Your task to perform on an android device: Search for vegetarian restaurants on Maps Image 0: 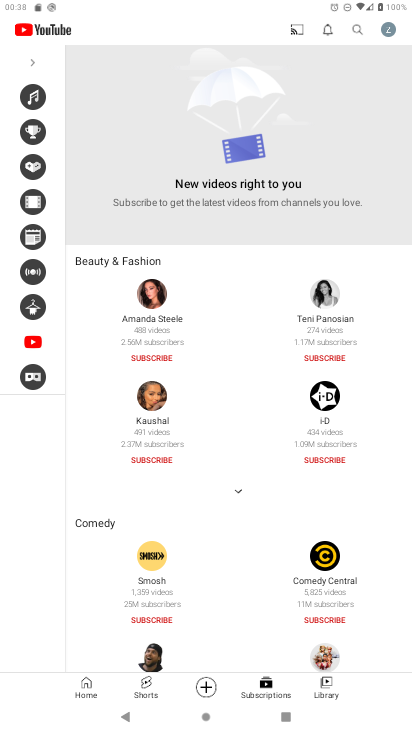
Step 0: drag from (234, 605) to (278, 220)
Your task to perform on an android device: Search for vegetarian restaurants on Maps Image 1: 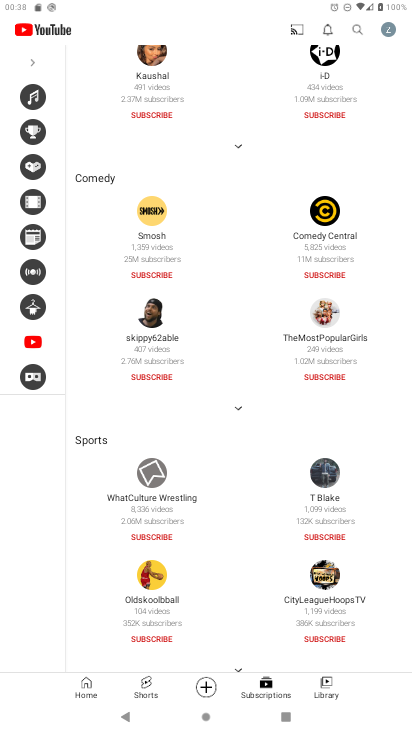
Step 1: drag from (285, 161) to (394, 295)
Your task to perform on an android device: Search for vegetarian restaurants on Maps Image 2: 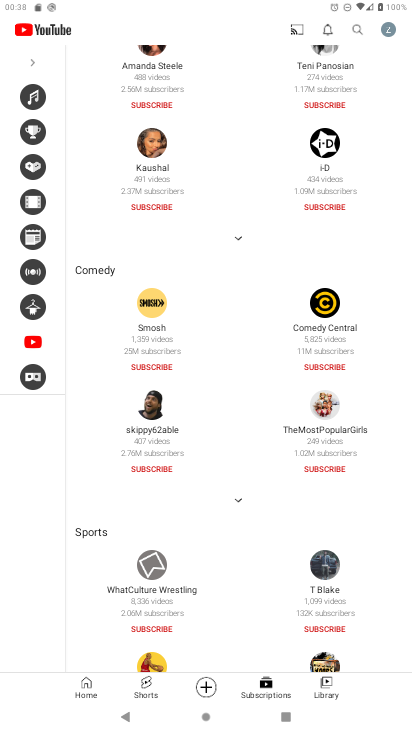
Step 2: drag from (188, 109) to (266, 613)
Your task to perform on an android device: Search for vegetarian restaurants on Maps Image 3: 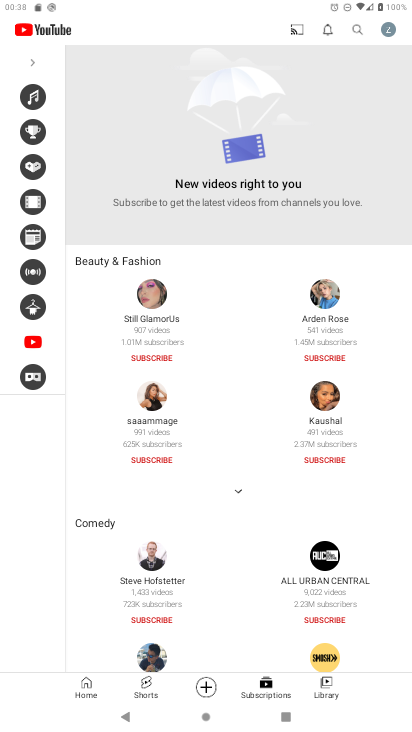
Step 3: press home button
Your task to perform on an android device: Search for vegetarian restaurants on Maps Image 4: 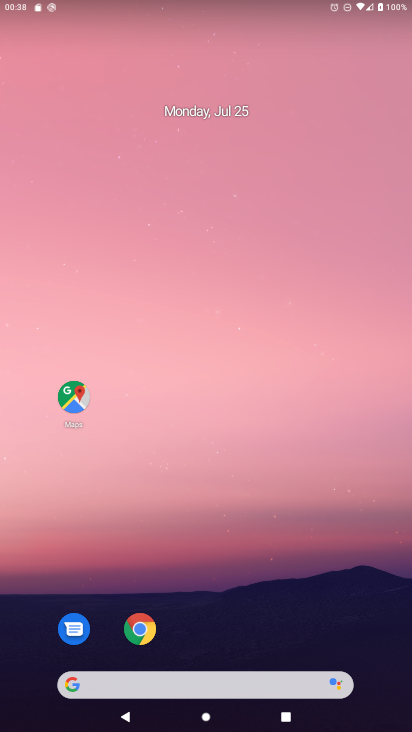
Step 4: drag from (213, 646) to (282, 2)
Your task to perform on an android device: Search for vegetarian restaurants on Maps Image 5: 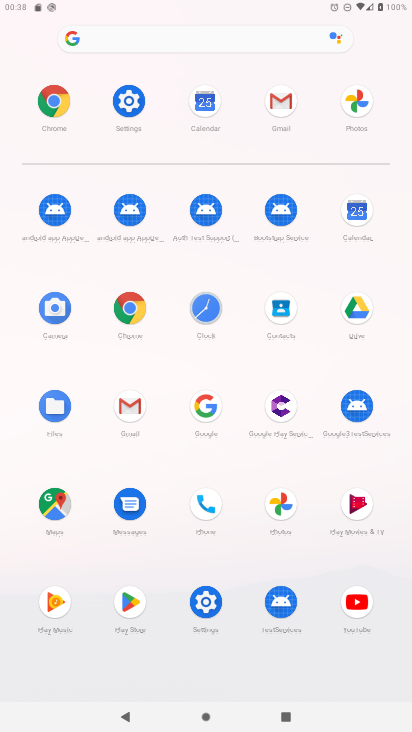
Step 5: click (53, 492)
Your task to perform on an android device: Search for vegetarian restaurants on Maps Image 6: 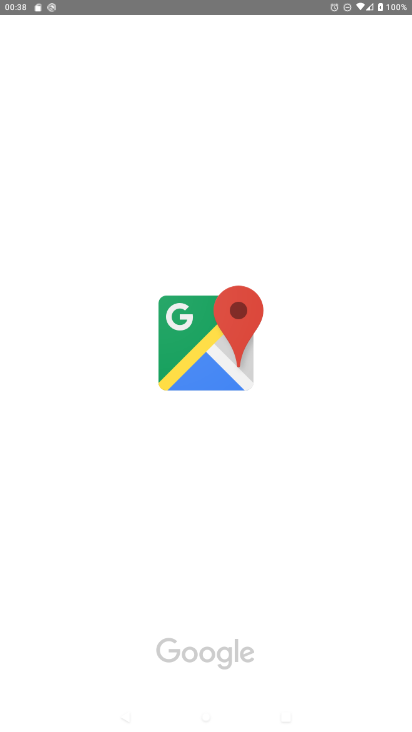
Step 6: drag from (229, 534) to (268, 300)
Your task to perform on an android device: Search for vegetarian restaurants on Maps Image 7: 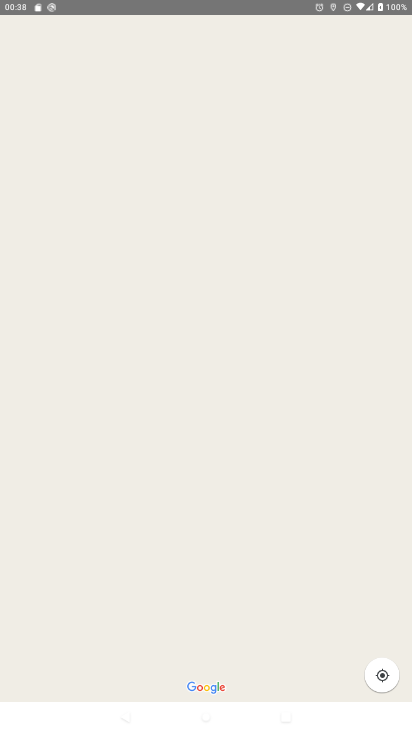
Step 7: drag from (339, 515) to (353, 287)
Your task to perform on an android device: Search for vegetarian restaurants on Maps Image 8: 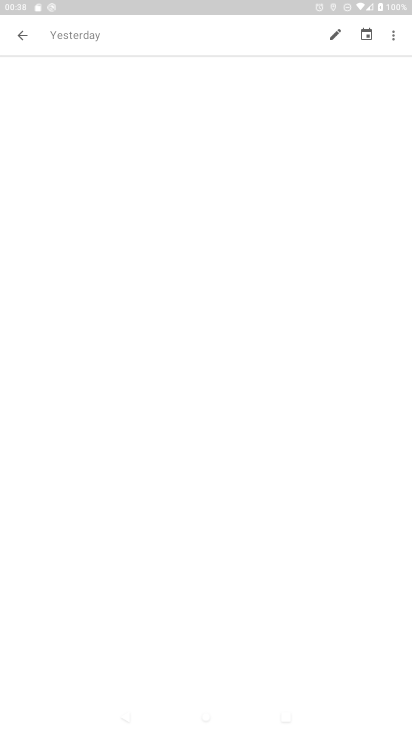
Step 8: click (10, 37)
Your task to perform on an android device: Search for vegetarian restaurants on Maps Image 9: 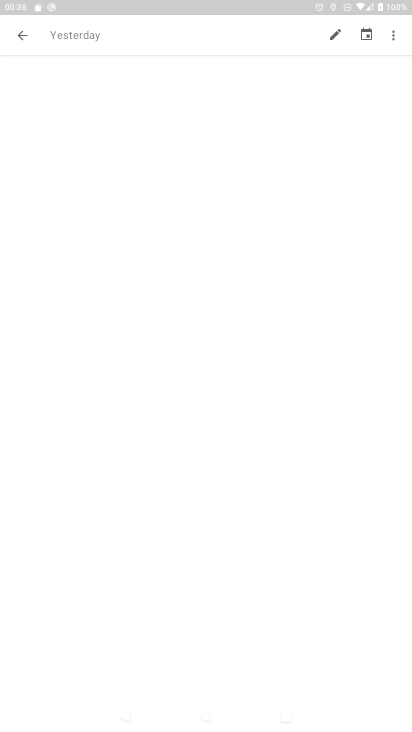
Step 9: click (22, 44)
Your task to perform on an android device: Search for vegetarian restaurants on Maps Image 10: 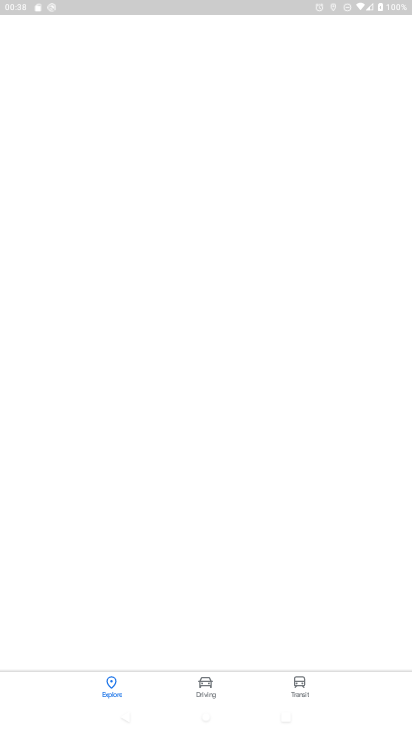
Step 10: press back button
Your task to perform on an android device: Search for vegetarian restaurants on Maps Image 11: 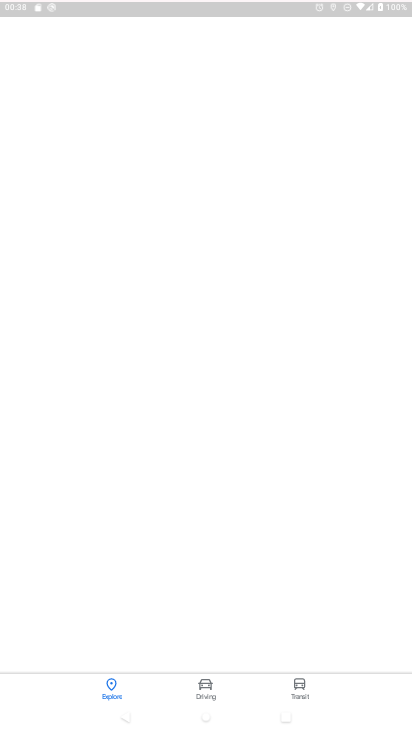
Step 11: press home button
Your task to perform on an android device: Search for vegetarian restaurants on Maps Image 12: 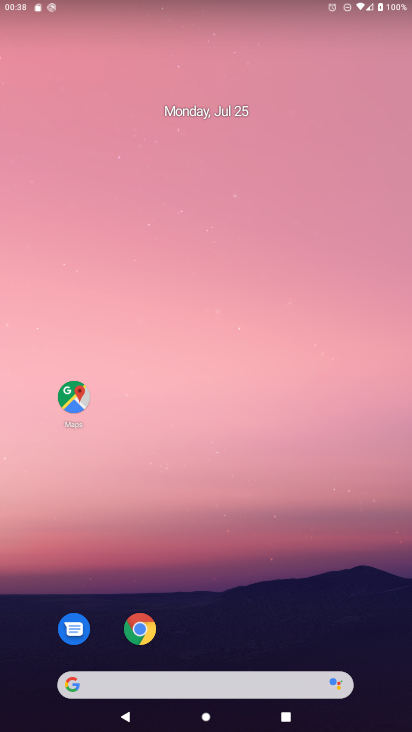
Step 12: drag from (187, 592) to (182, 77)
Your task to perform on an android device: Search for vegetarian restaurants on Maps Image 13: 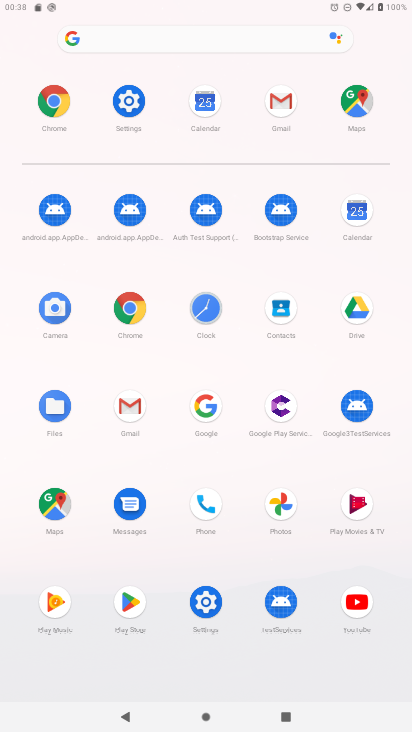
Step 13: click (50, 496)
Your task to perform on an android device: Search for vegetarian restaurants on Maps Image 14: 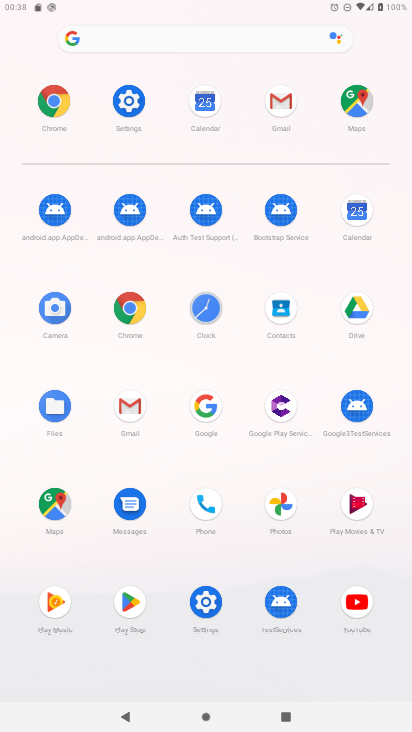
Step 14: click (50, 496)
Your task to perform on an android device: Search for vegetarian restaurants on Maps Image 15: 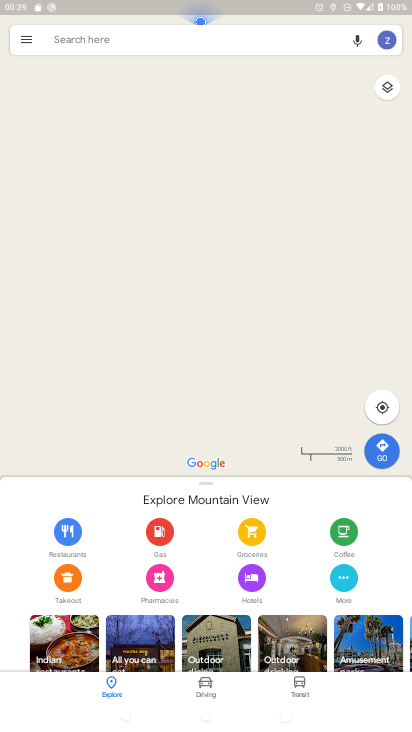
Step 15: drag from (191, 606) to (241, 308)
Your task to perform on an android device: Search for vegetarian restaurants on Maps Image 16: 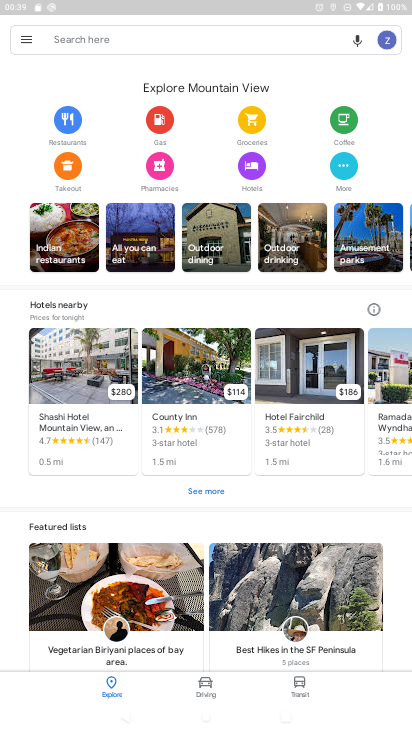
Step 16: click (126, 41)
Your task to perform on an android device: Search for vegetarian restaurants on Maps Image 17: 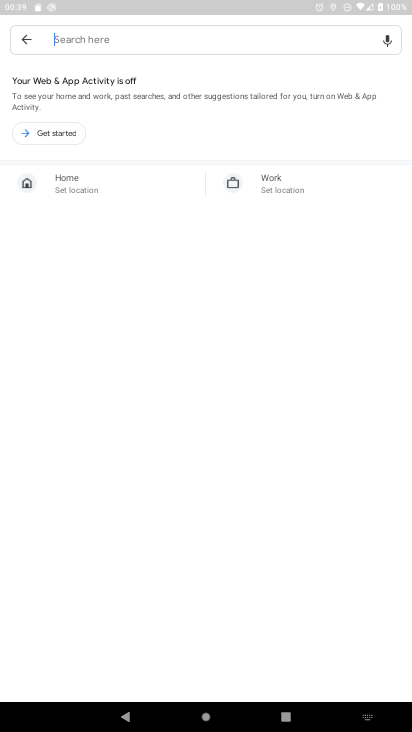
Step 17: click (160, 36)
Your task to perform on an android device: Search for vegetarian restaurants on Maps Image 18: 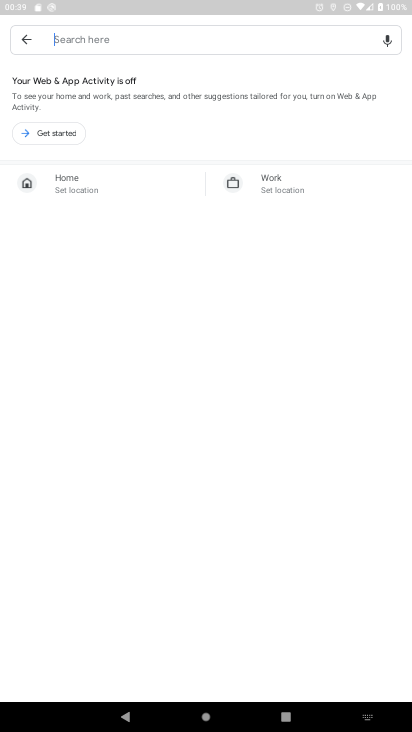
Step 18: type "vegetarian restaurants"
Your task to perform on an android device: Search for vegetarian restaurants on Maps Image 19: 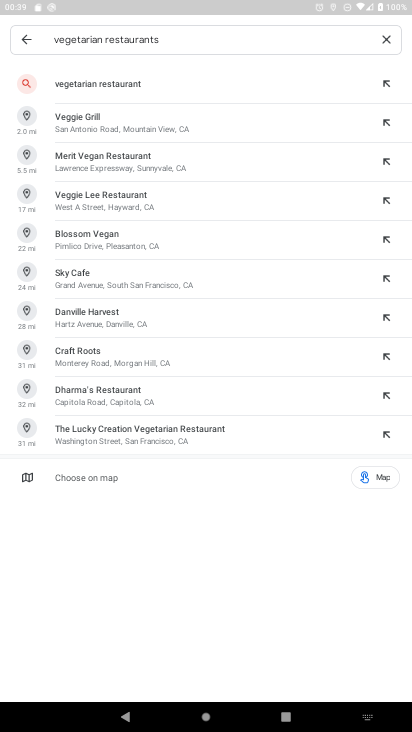
Step 19: click (96, 77)
Your task to perform on an android device: Search for vegetarian restaurants on Maps Image 20: 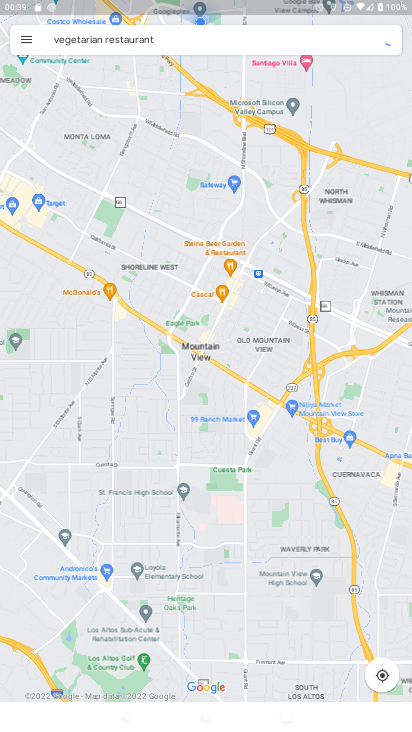
Step 20: task complete